Your task to perform on an android device: Go to Maps Image 0: 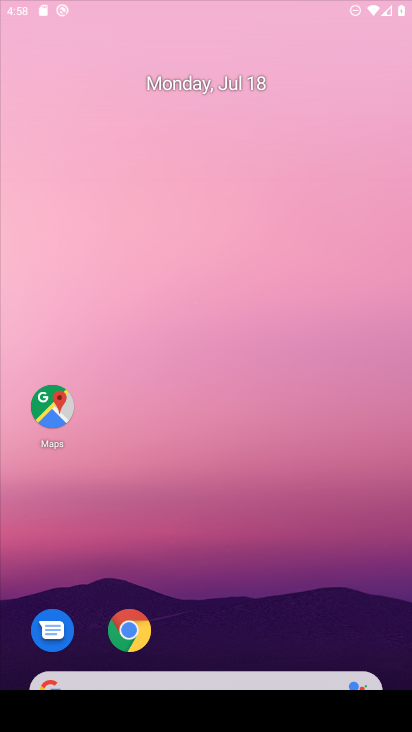
Step 0: press home button
Your task to perform on an android device: Go to Maps Image 1: 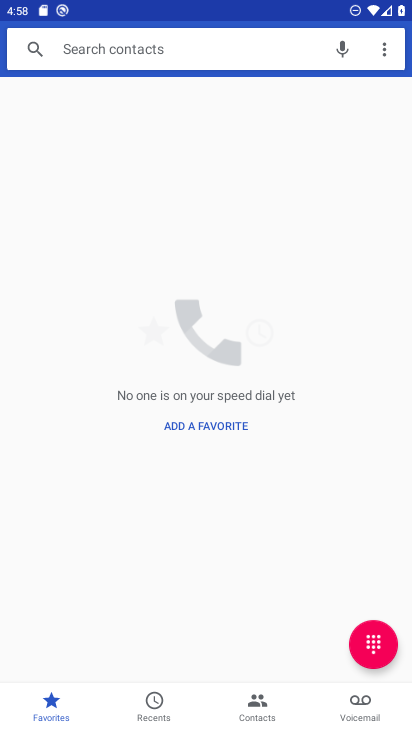
Step 1: click (297, 262)
Your task to perform on an android device: Go to Maps Image 2: 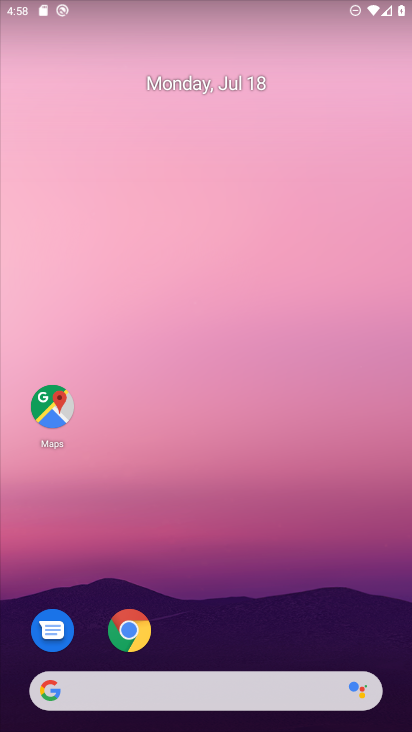
Step 2: click (47, 396)
Your task to perform on an android device: Go to Maps Image 3: 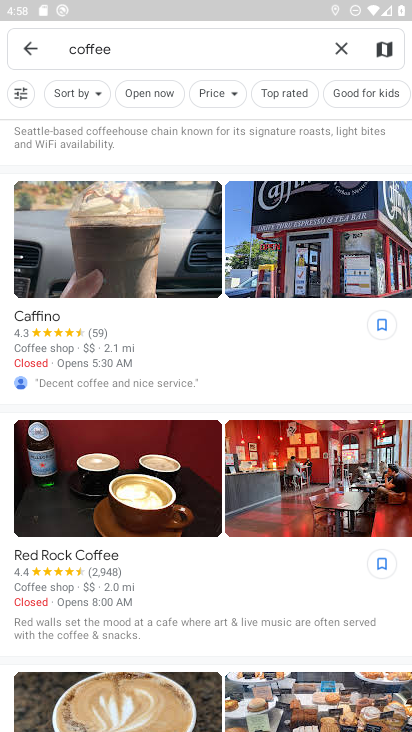
Step 3: click (34, 48)
Your task to perform on an android device: Go to Maps Image 4: 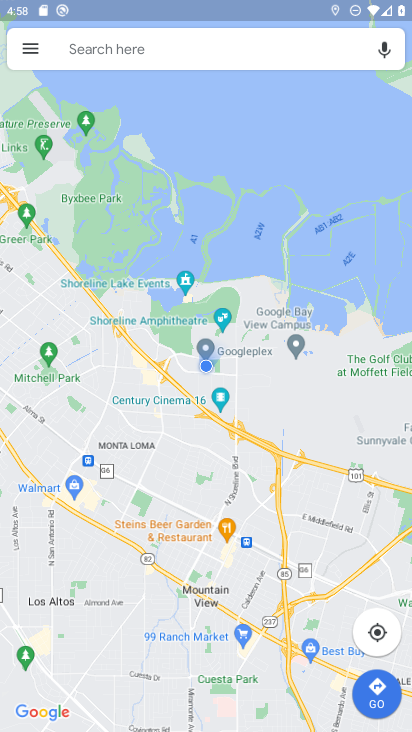
Step 4: task complete